Your task to perform on an android device: turn on showing notifications on the lock screen Image 0: 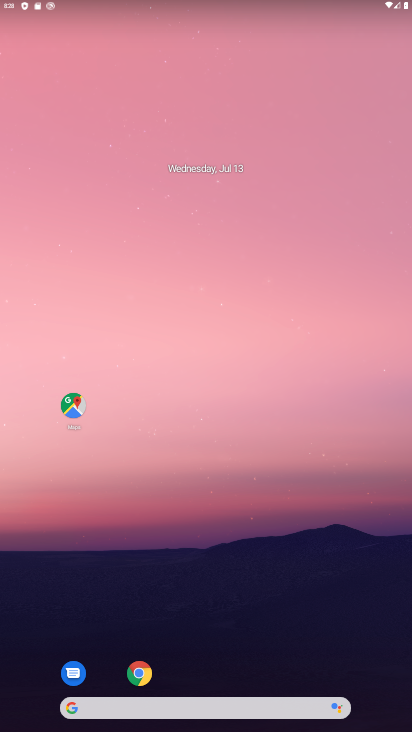
Step 0: drag from (193, 654) to (211, 127)
Your task to perform on an android device: turn on showing notifications on the lock screen Image 1: 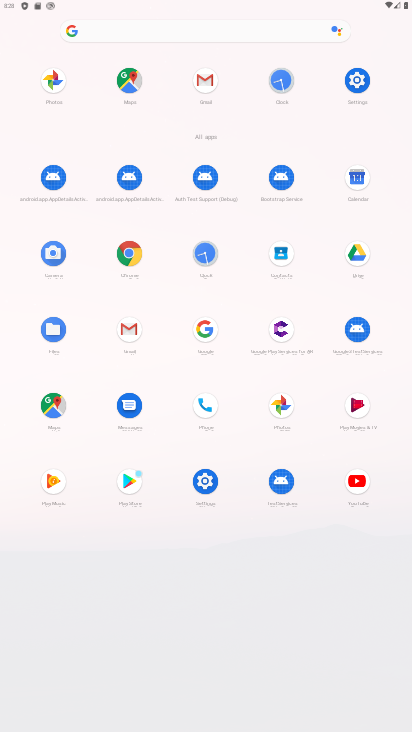
Step 1: click (356, 83)
Your task to perform on an android device: turn on showing notifications on the lock screen Image 2: 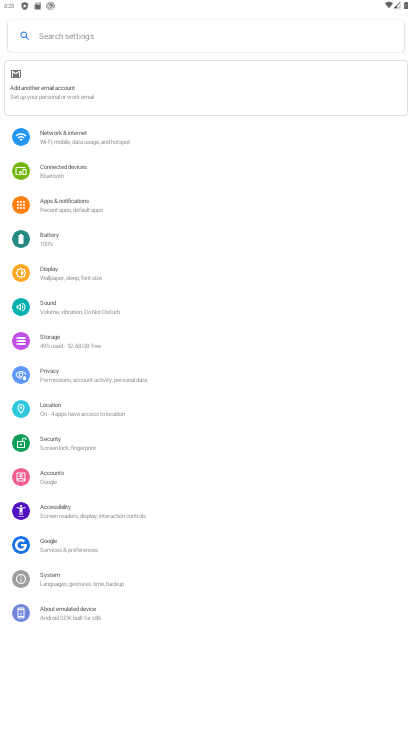
Step 2: click (73, 205)
Your task to perform on an android device: turn on showing notifications on the lock screen Image 3: 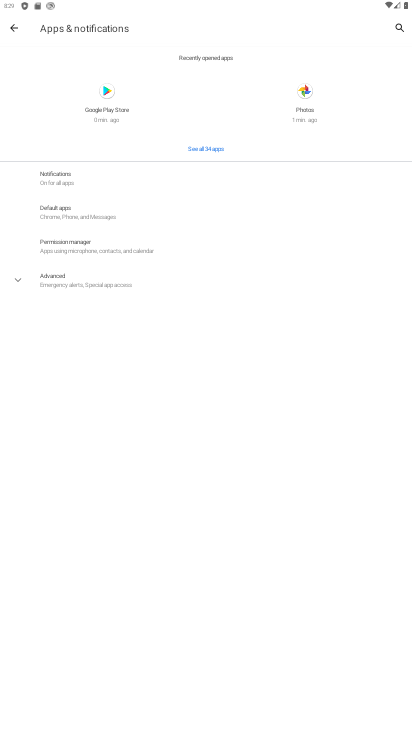
Step 3: click (115, 179)
Your task to perform on an android device: turn on showing notifications on the lock screen Image 4: 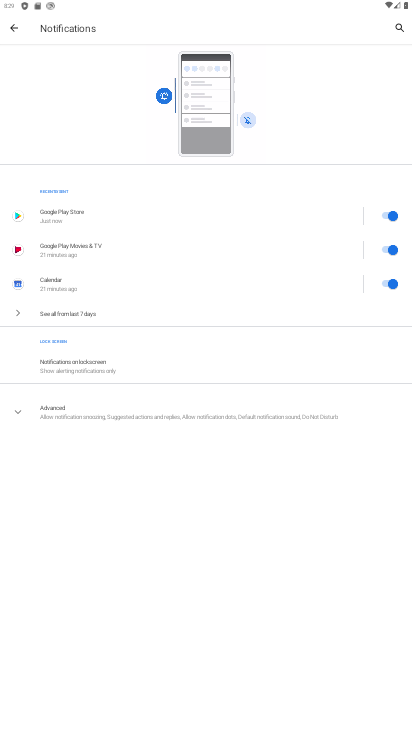
Step 4: click (114, 369)
Your task to perform on an android device: turn on showing notifications on the lock screen Image 5: 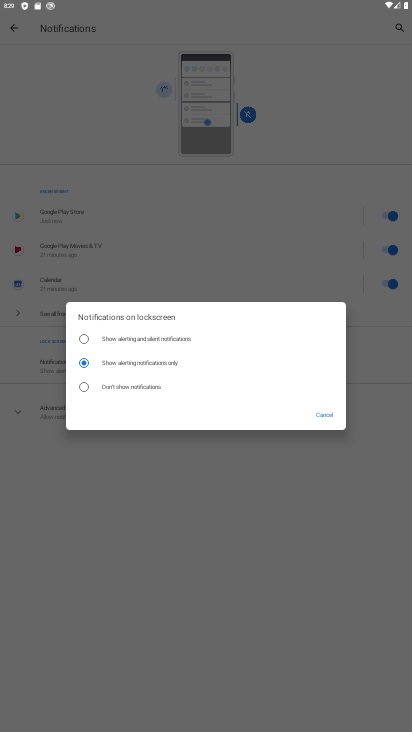
Step 5: click (184, 339)
Your task to perform on an android device: turn on showing notifications on the lock screen Image 6: 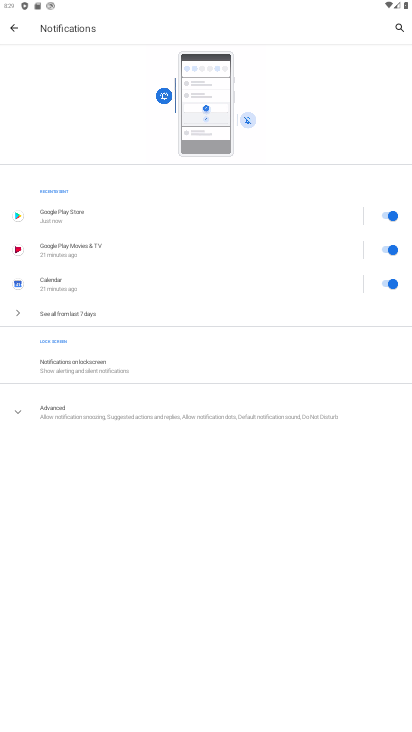
Step 6: task complete